Your task to perform on an android device: Do I have any events tomorrow? Image 0: 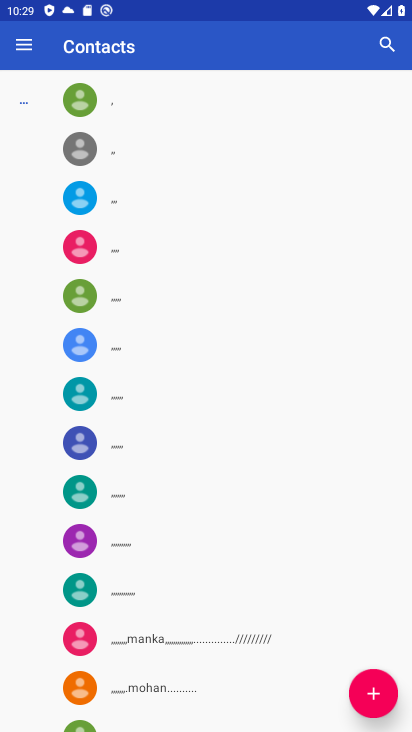
Step 0: press home button
Your task to perform on an android device: Do I have any events tomorrow? Image 1: 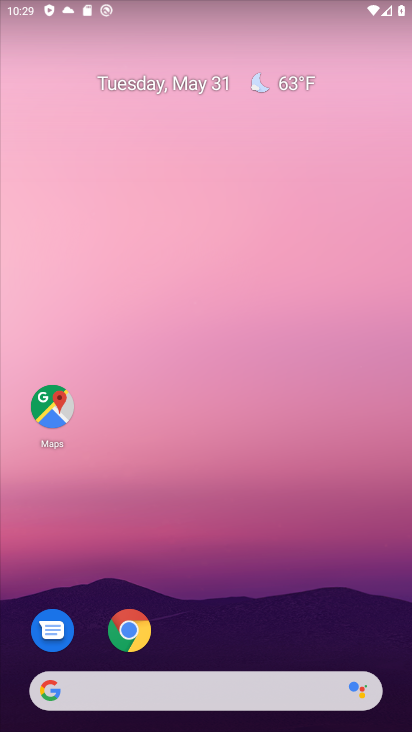
Step 1: drag from (210, 615) to (199, 240)
Your task to perform on an android device: Do I have any events tomorrow? Image 2: 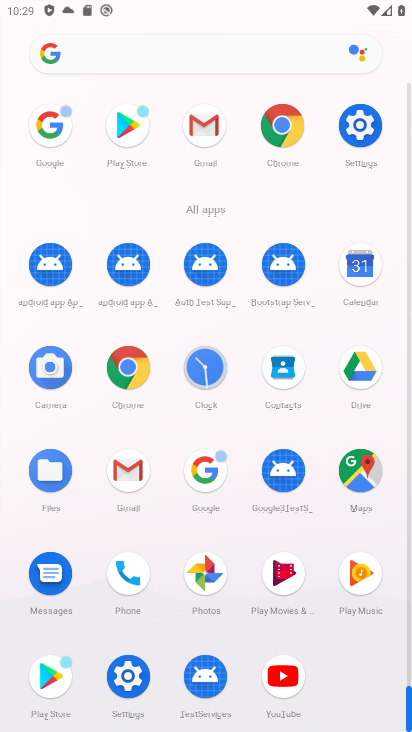
Step 2: click (354, 310)
Your task to perform on an android device: Do I have any events tomorrow? Image 3: 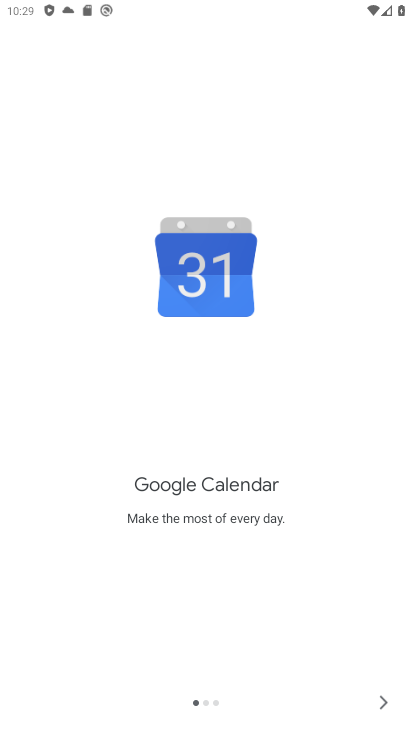
Step 3: click (389, 710)
Your task to perform on an android device: Do I have any events tomorrow? Image 4: 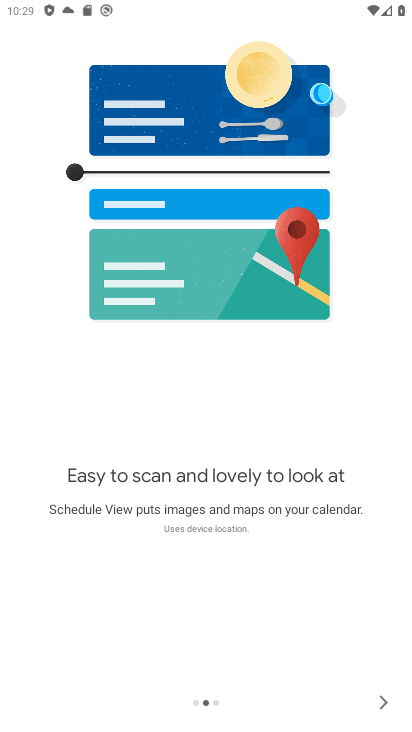
Step 4: click (383, 709)
Your task to perform on an android device: Do I have any events tomorrow? Image 5: 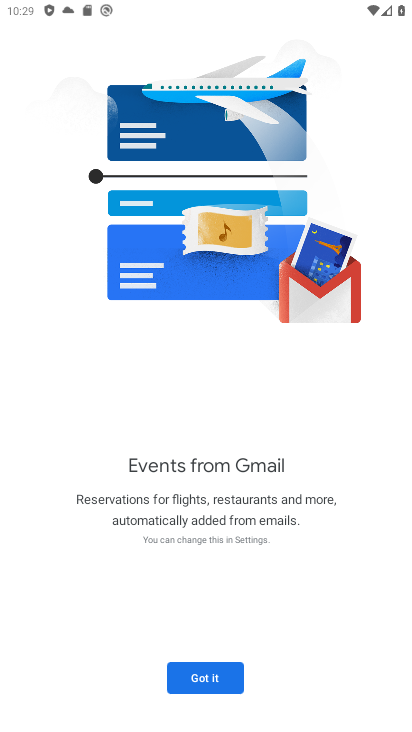
Step 5: click (205, 682)
Your task to perform on an android device: Do I have any events tomorrow? Image 6: 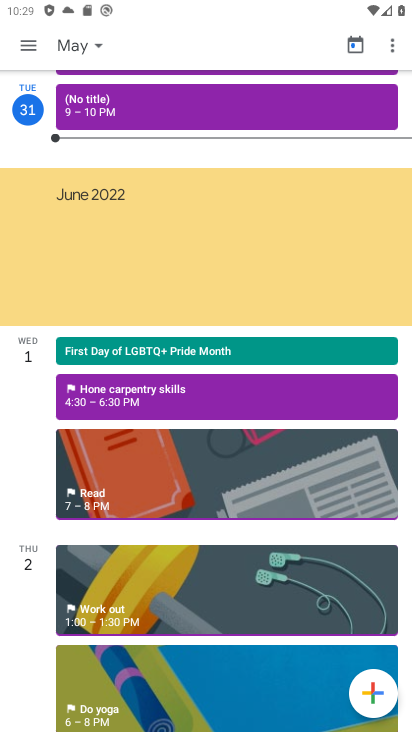
Step 6: task complete